Your task to perform on an android device: Open settings Image 0: 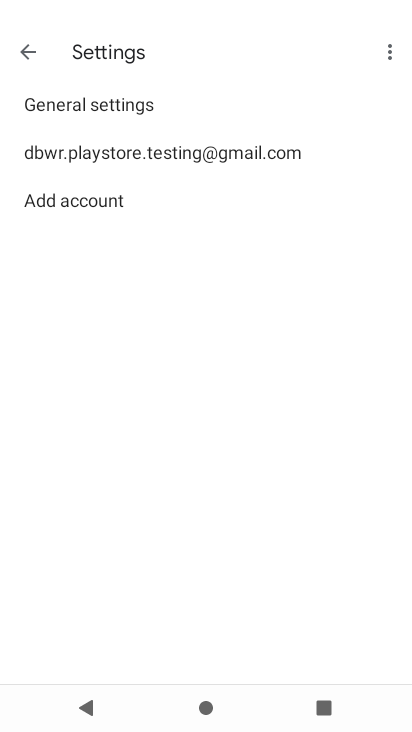
Step 0: press home button
Your task to perform on an android device: Open settings Image 1: 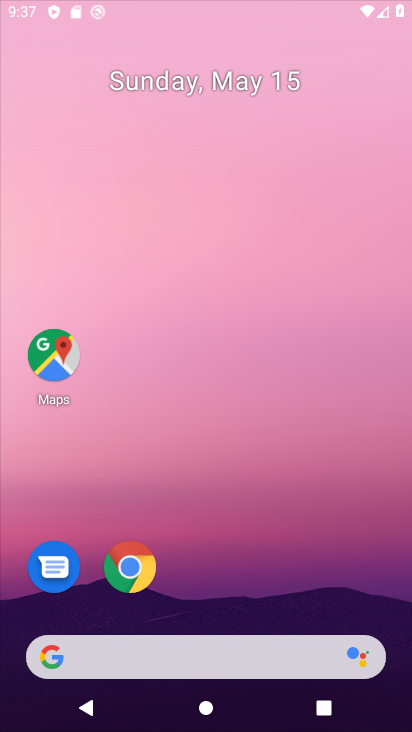
Step 1: drag from (211, 585) to (246, 74)
Your task to perform on an android device: Open settings Image 2: 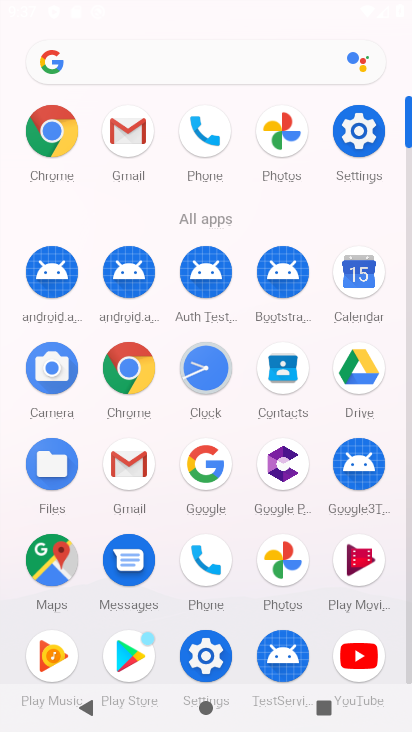
Step 2: click (355, 118)
Your task to perform on an android device: Open settings Image 3: 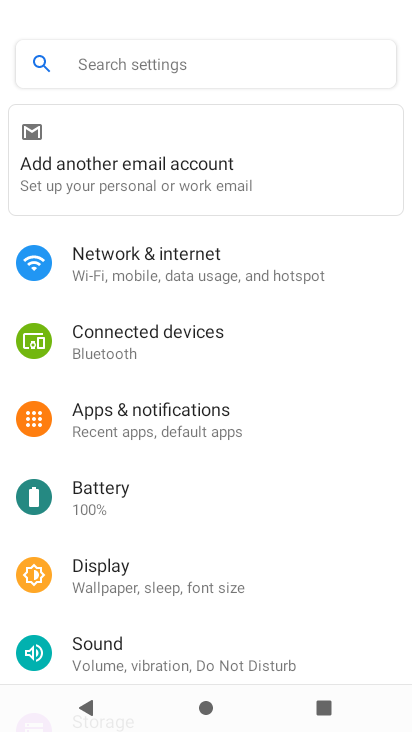
Step 3: task complete